Your task to perform on an android device: Search for "logitech g pro" on costco.com, select the first entry, and add it to the cart. Image 0: 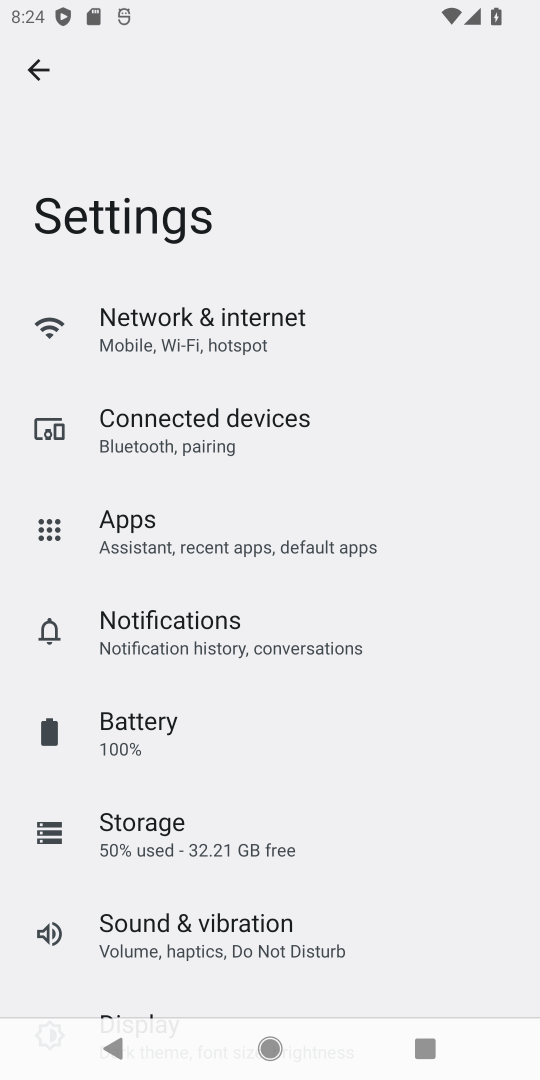
Step 0: press home button
Your task to perform on an android device: Search for "logitech g pro" on costco.com, select the first entry, and add it to the cart. Image 1: 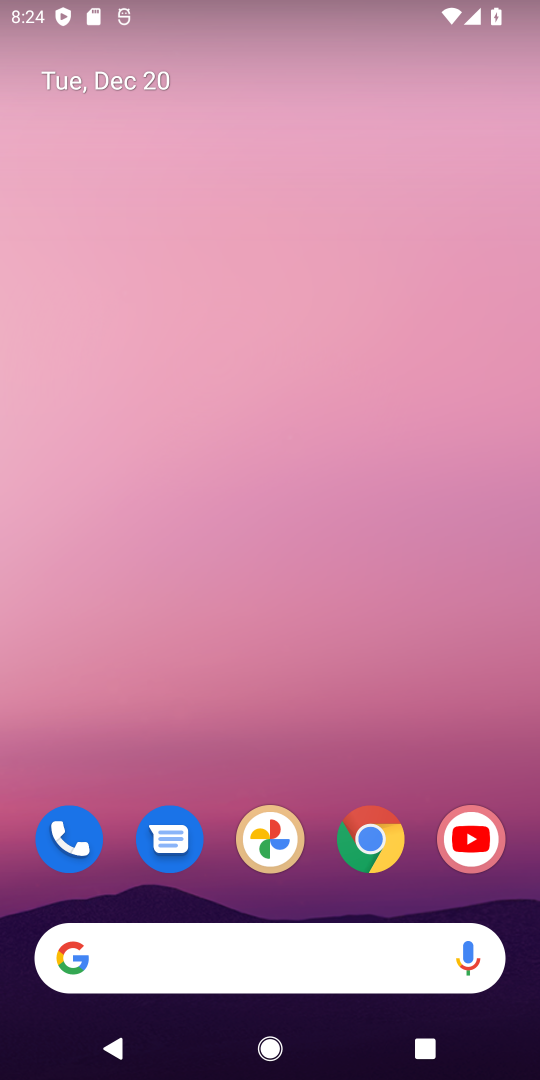
Step 1: click (268, 946)
Your task to perform on an android device: Search for "logitech g pro" on costco.com, select the first entry, and add it to the cart. Image 2: 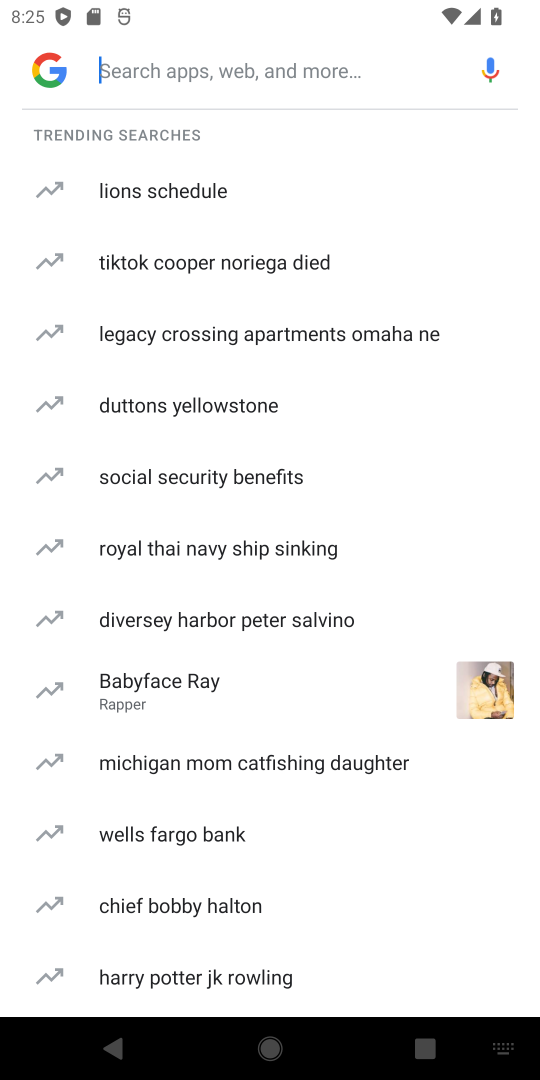
Step 2: type "costco.com"
Your task to perform on an android device: Search for "logitech g pro" on costco.com, select the first entry, and add it to the cart. Image 3: 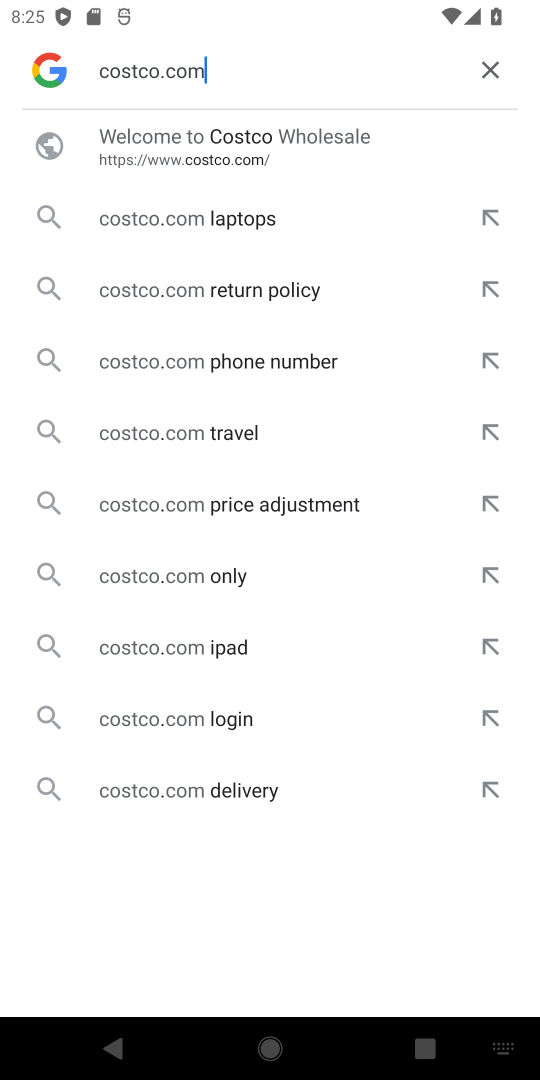
Step 3: click (204, 142)
Your task to perform on an android device: Search for "logitech g pro" on costco.com, select the first entry, and add it to the cart. Image 4: 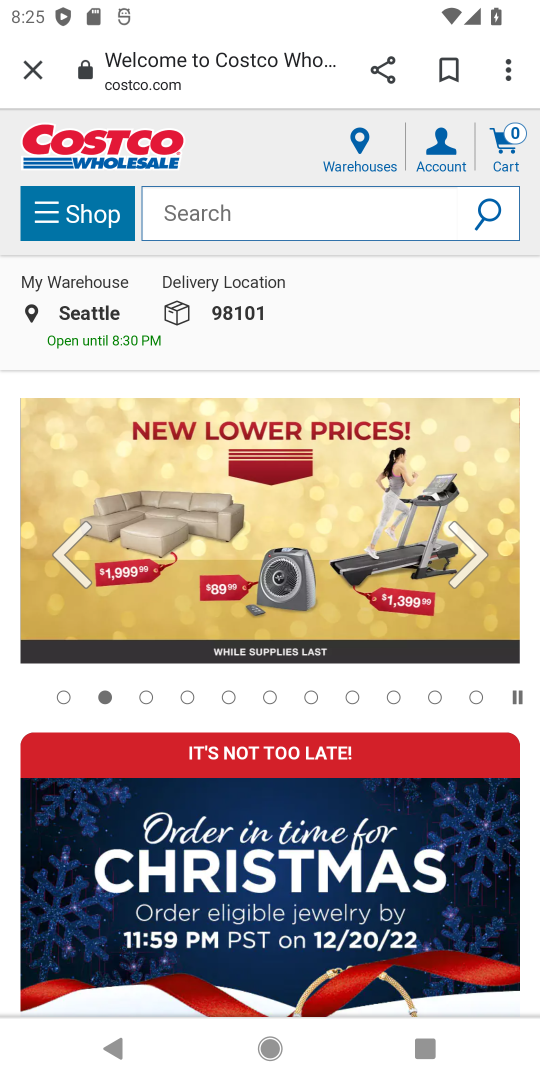
Step 4: click (218, 205)
Your task to perform on an android device: Search for "logitech g pro" on costco.com, select the first entry, and add it to the cart. Image 5: 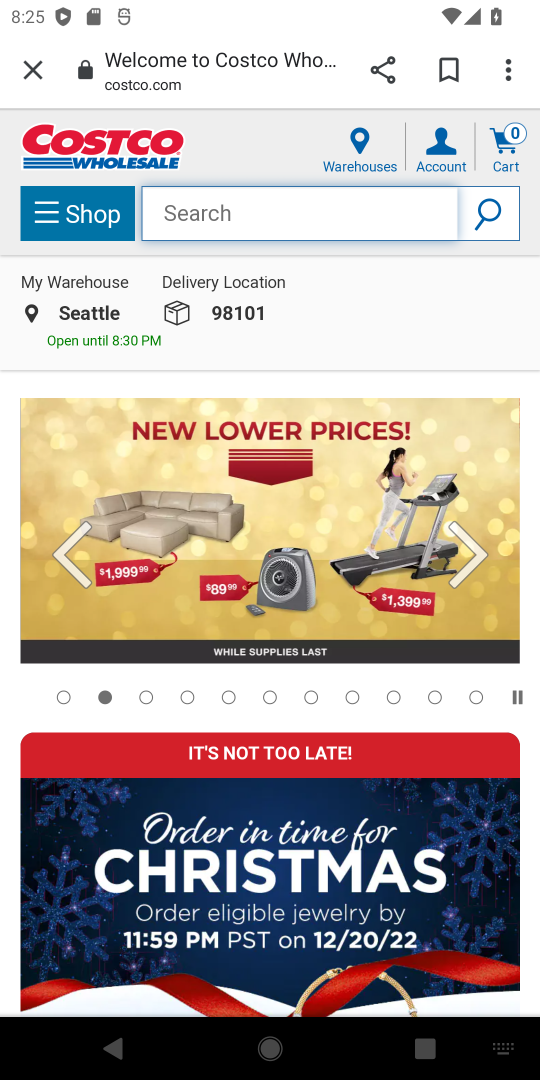
Step 5: type "logitech g pro"
Your task to perform on an android device: Search for "logitech g pro" on costco.com, select the first entry, and add it to the cart. Image 6: 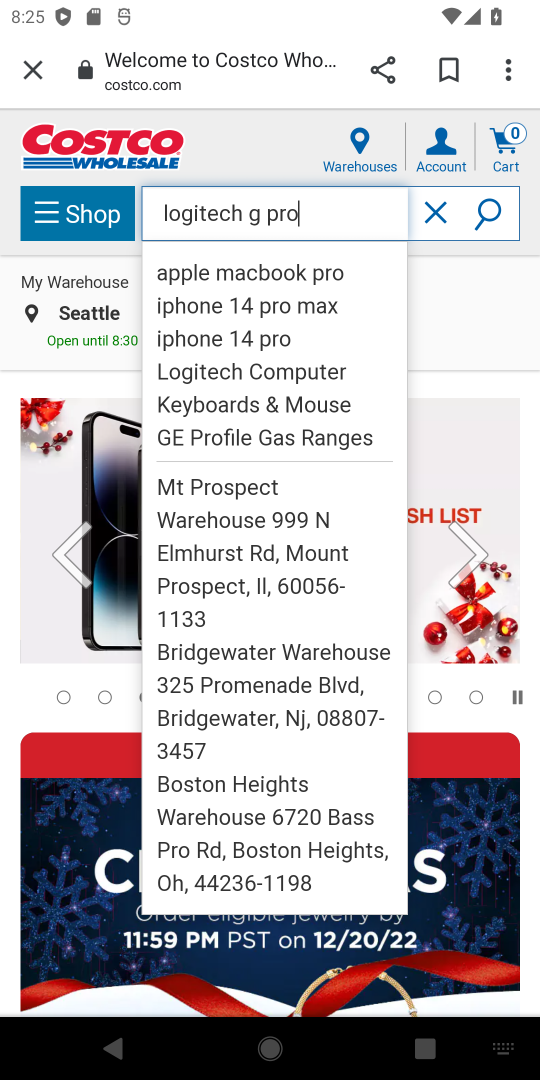
Step 6: click (484, 211)
Your task to perform on an android device: Search for "logitech g pro" on costco.com, select the first entry, and add it to the cart. Image 7: 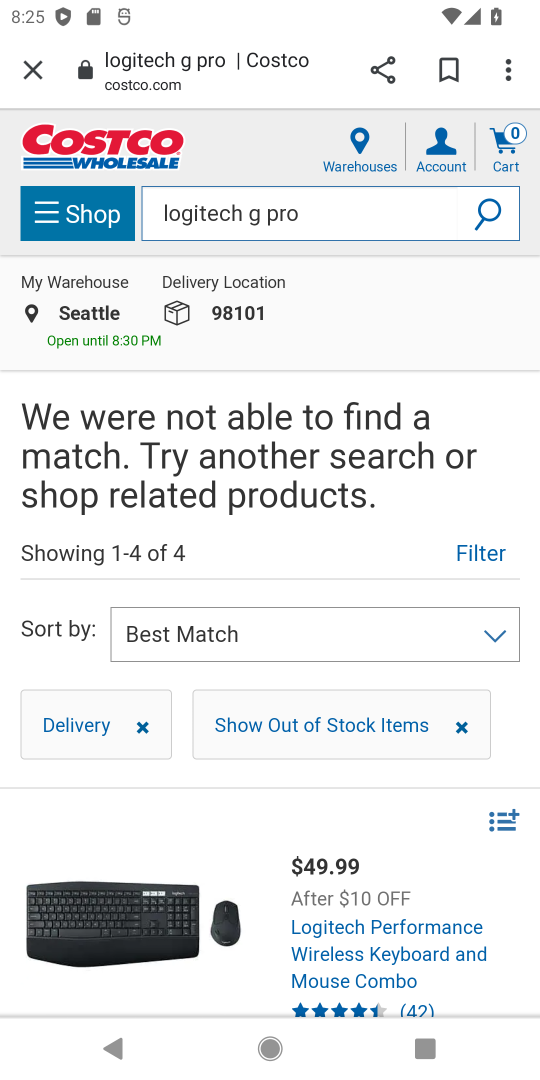
Step 7: task complete